Your task to perform on an android device: When is my next meeting? Image 0: 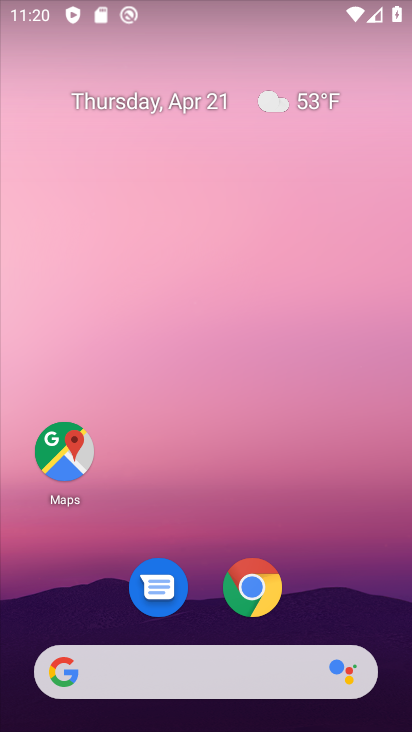
Step 0: drag from (173, 533) to (249, 81)
Your task to perform on an android device: When is my next meeting? Image 1: 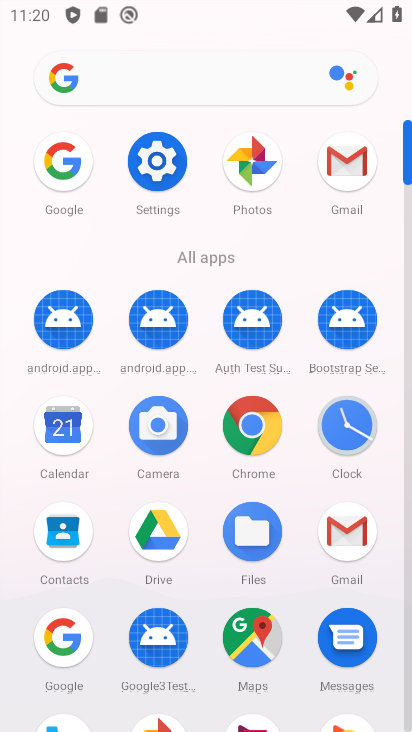
Step 1: click (59, 431)
Your task to perform on an android device: When is my next meeting? Image 2: 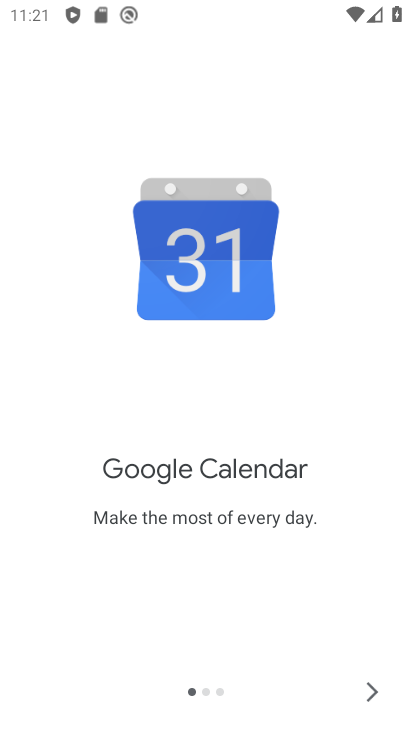
Step 2: click (360, 688)
Your task to perform on an android device: When is my next meeting? Image 3: 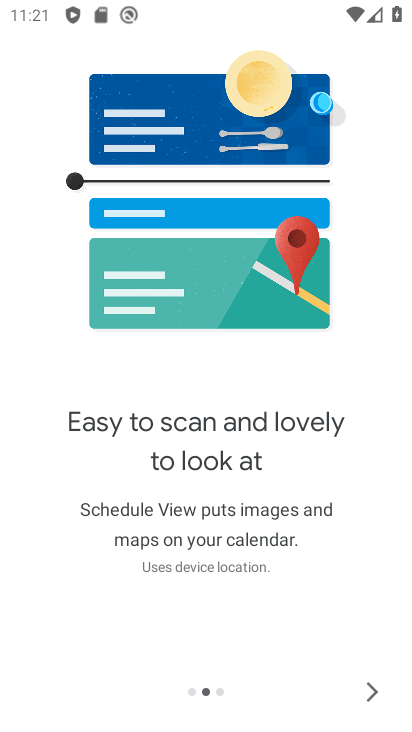
Step 3: click (371, 676)
Your task to perform on an android device: When is my next meeting? Image 4: 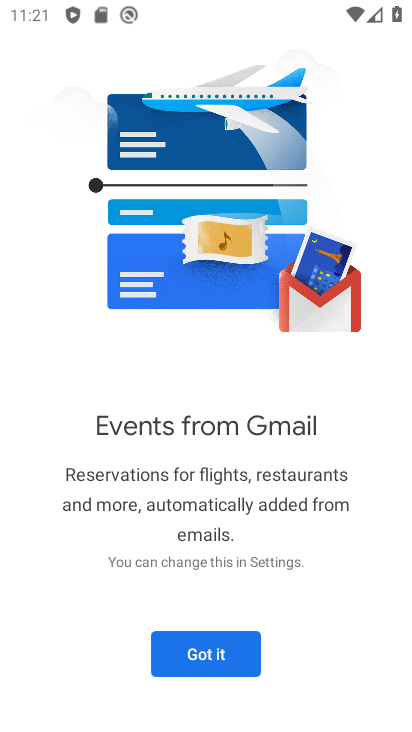
Step 4: click (241, 646)
Your task to perform on an android device: When is my next meeting? Image 5: 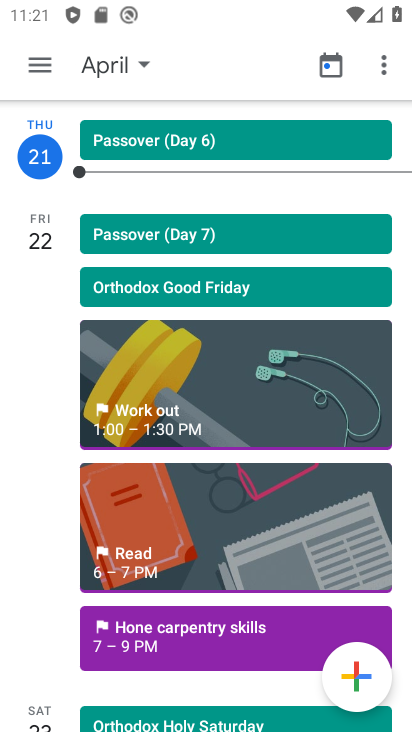
Step 5: drag from (268, 632) to (264, 133)
Your task to perform on an android device: When is my next meeting? Image 6: 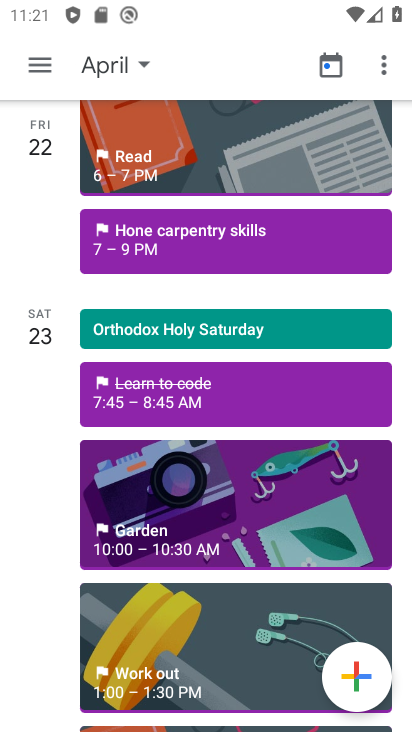
Step 6: click (39, 64)
Your task to perform on an android device: When is my next meeting? Image 7: 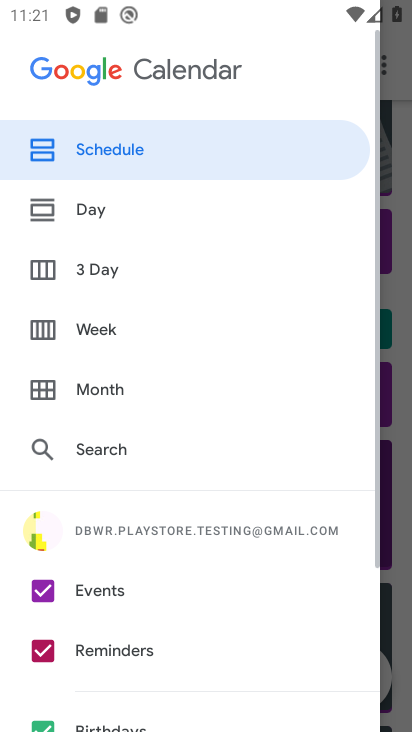
Step 7: drag from (148, 664) to (135, 696)
Your task to perform on an android device: When is my next meeting? Image 8: 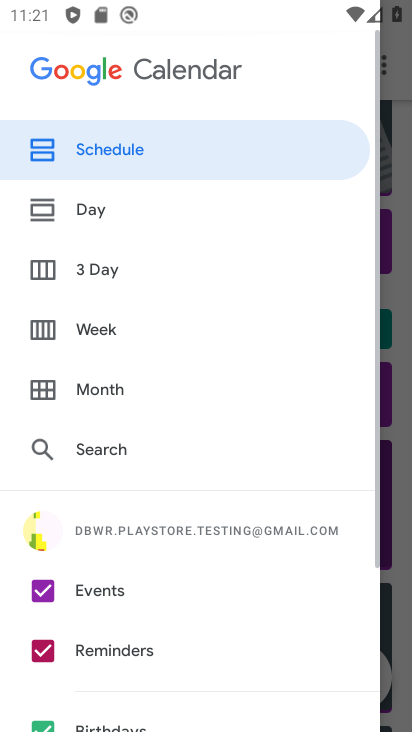
Step 8: click (130, 143)
Your task to perform on an android device: When is my next meeting? Image 9: 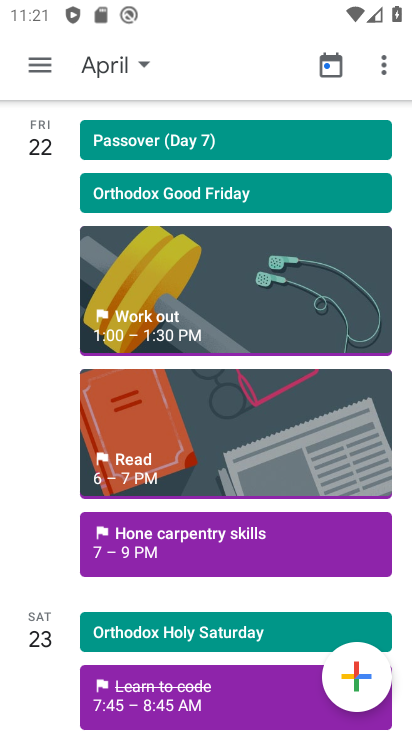
Step 9: task complete